Your task to perform on an android device: Check the weather Image 0: 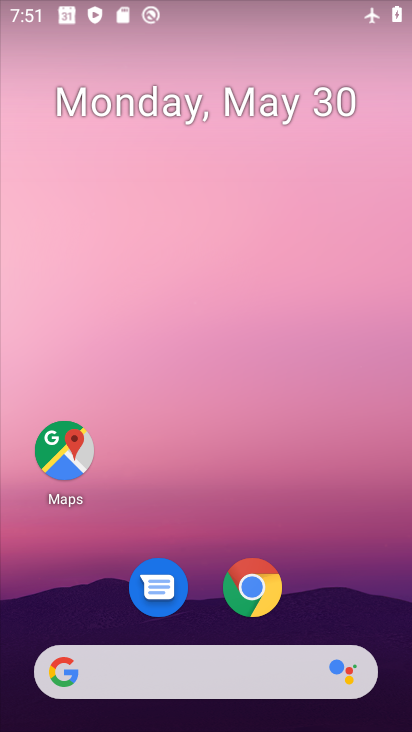
Step 0: drag from (345, 569) to (176, 26)
Your task to perform on an android device: Check the weather Image 1: 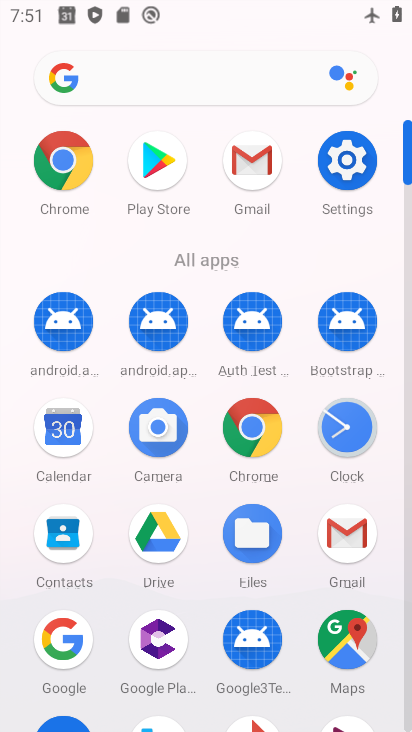
Step 1: drag from (9, 548) to (12, 248)
Your task to perform on an android device: Check the weather Image 2: 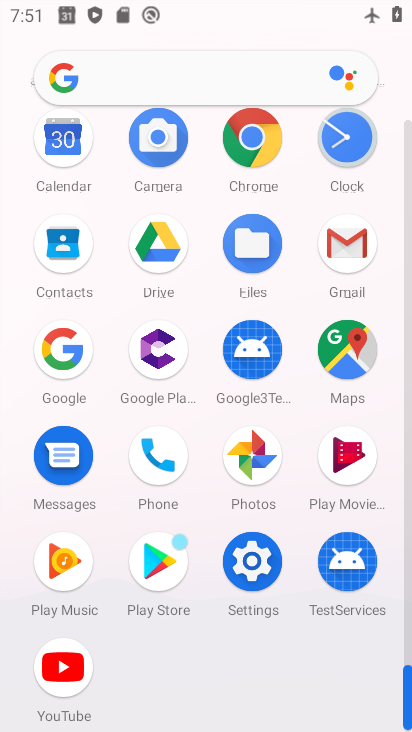
Step 2: click (251, 138)
Your task to perform on an android device: Check the weather Image 3: 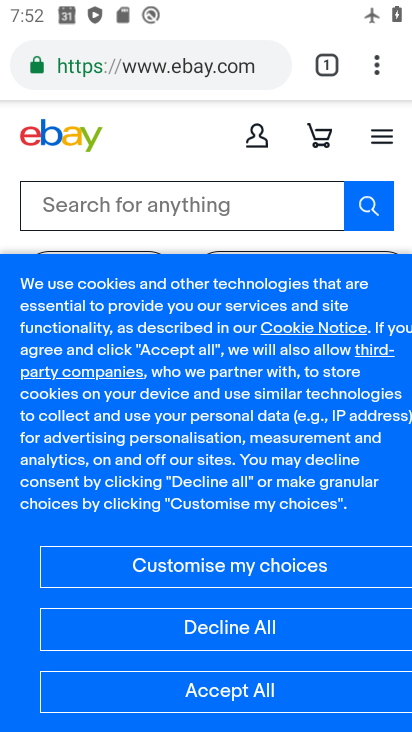
Step 3: click (212, 70)
Your task to perform on an android device: Check the weather Image 4: 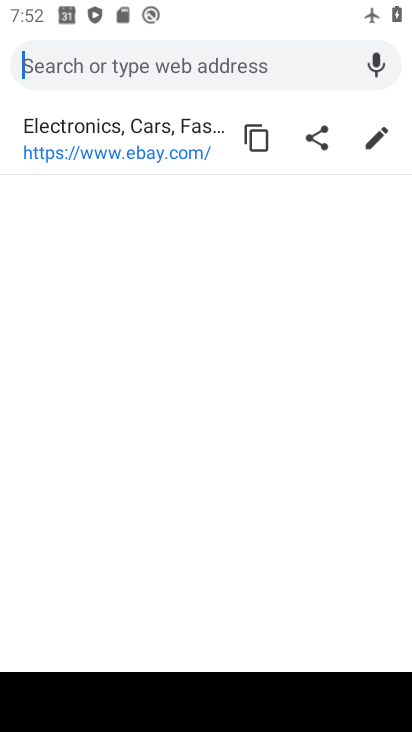
Step 4: type "Check the weather"
Your task to perform on an android device: Check the weather Image 5: 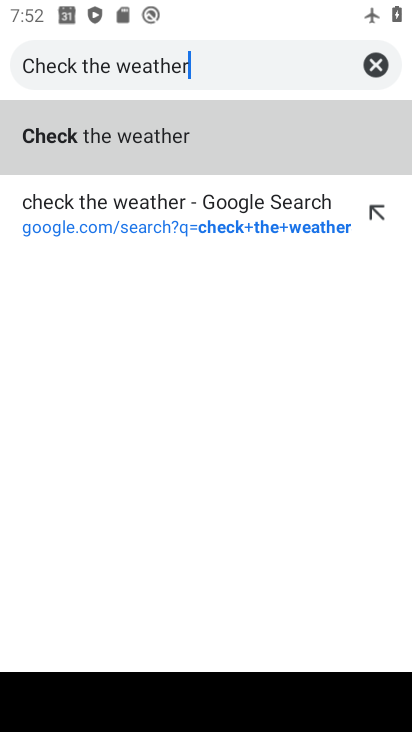
Step 5: type ""
Your task to perform on an android device: Check the weather Image 6: 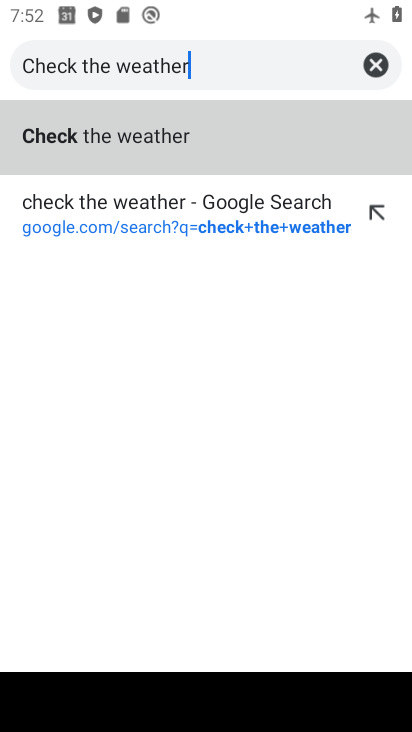
Step 6: click (231, 125)
Your task to perform on an android device: Check the weather Image 7: 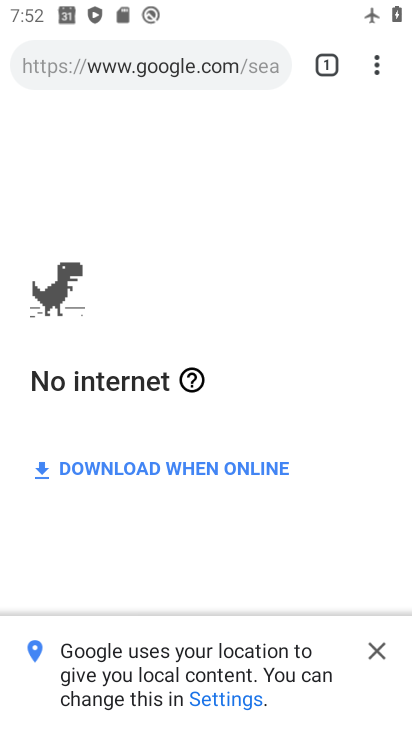
Step 7: task complete